Your task to perform on an android device: Open maps Image 0: 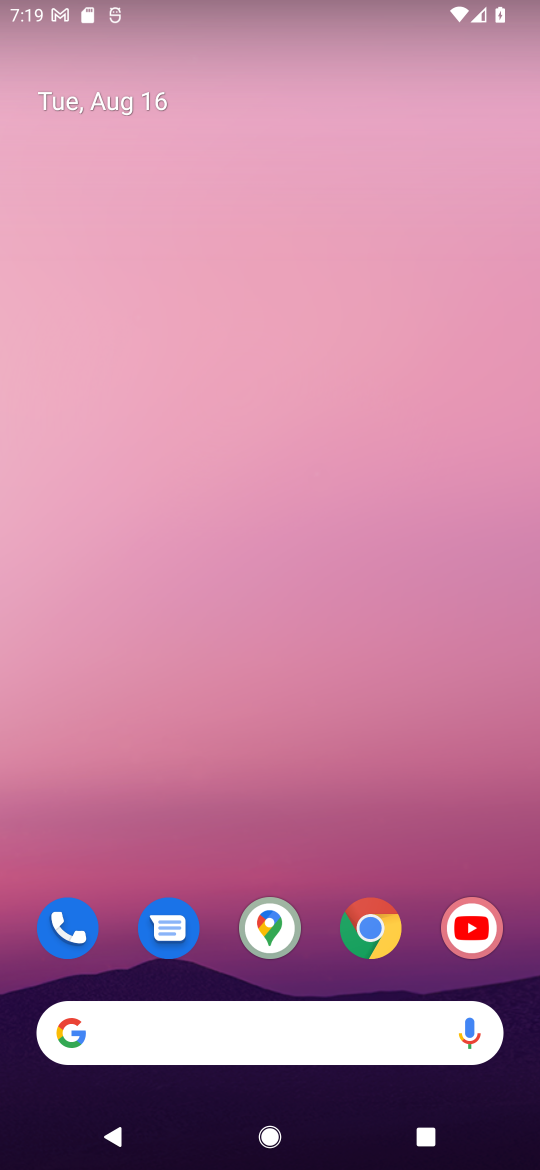
Step 0: drag from (209, 1014) to (289, 194)
Your task to perform on an android device: Open maps Image 1: 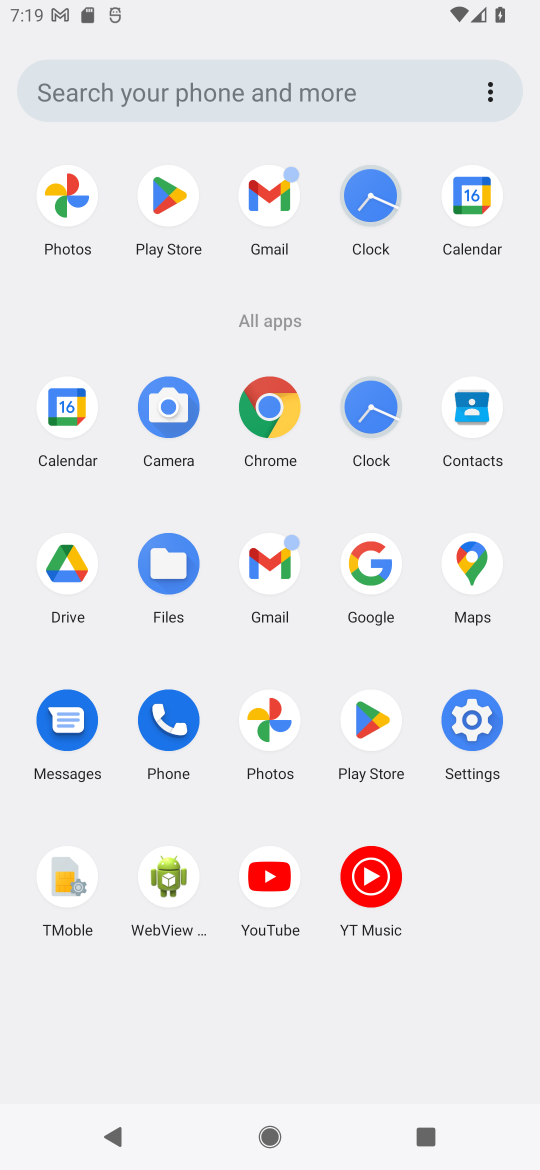
Step 1: click (481, 571)
Your task to perform on an android device: Open maps Image 2: 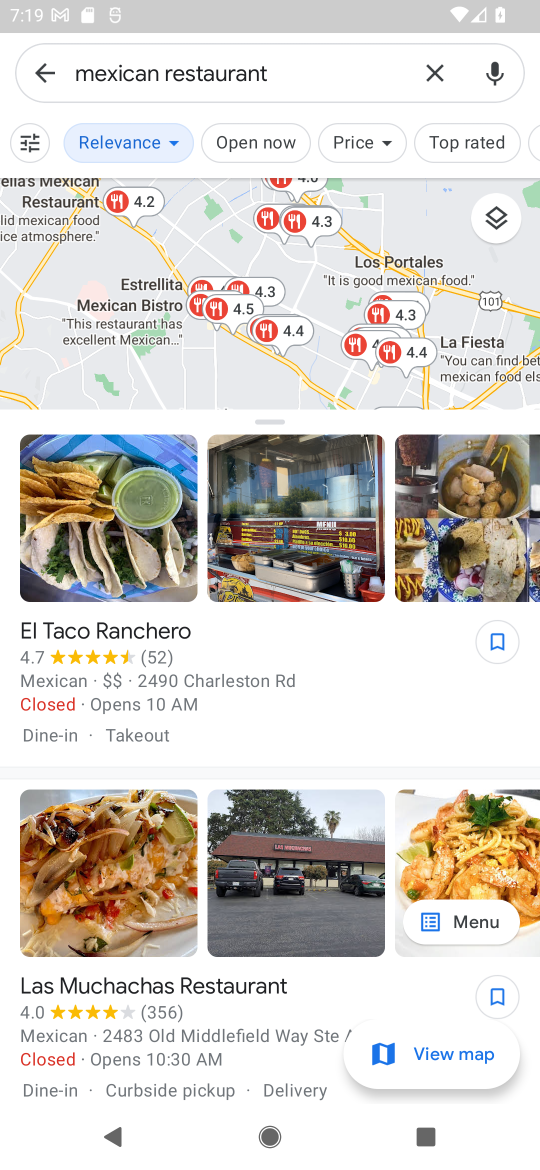
Step 2: task complete